Your task to perform on an android device: Open eBay Image 0: 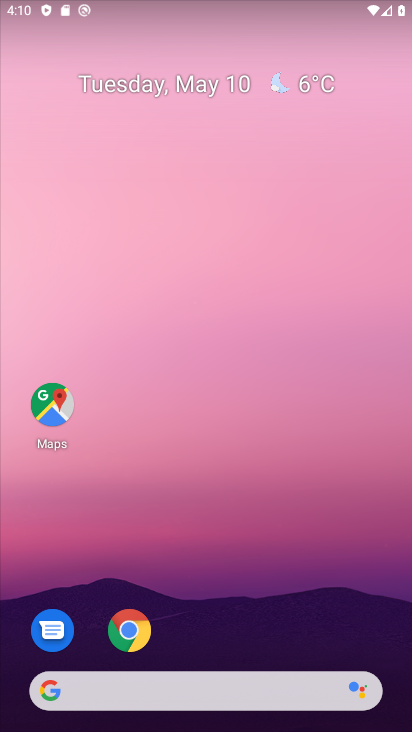
Step 0: drag from (289, 536) to (187, 110)
Your task to perform on an android device: Open eBay Image 1: 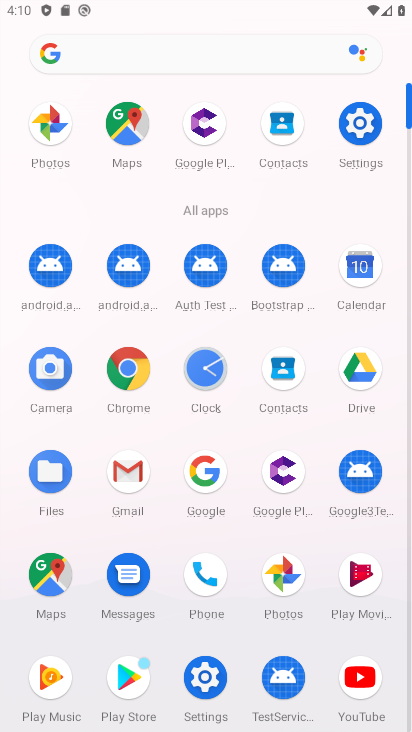
Step 1: click (129, 366)
Your task to perform on an android device: Open eBay Image 2: 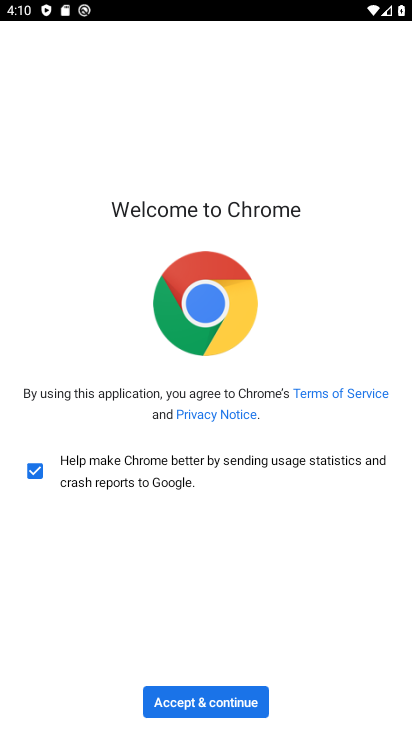
Step 2: click (228, 701)
Your task to perform on an android device: Open eBay Image 3: 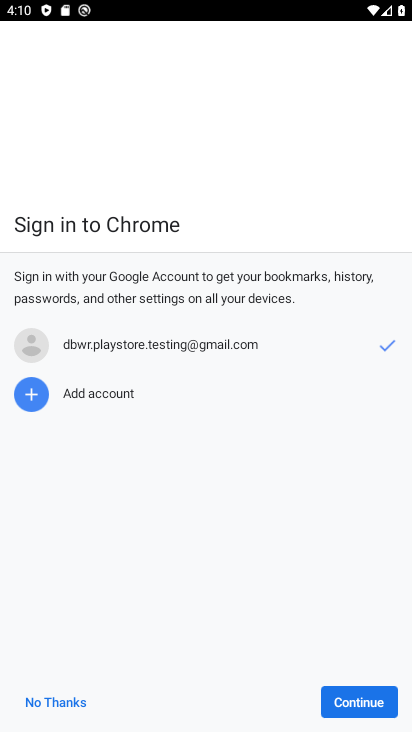
Step 3: click (366, 698)
Your task to perform on an android device: Open eBay Image 4: 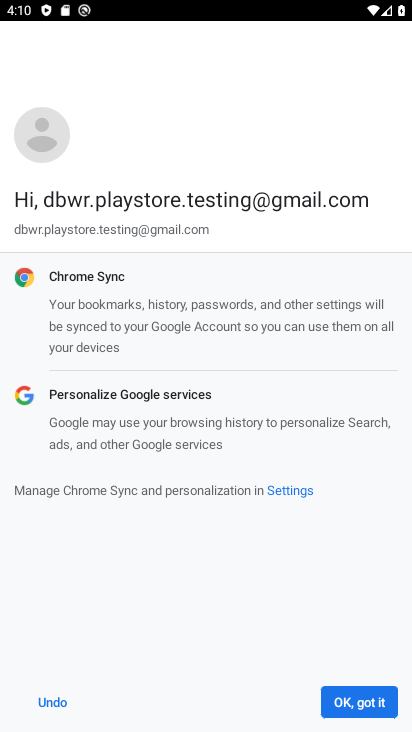
Step 4: click (363, 695)
Your task to perform on an android device: Open eBay Image 5: 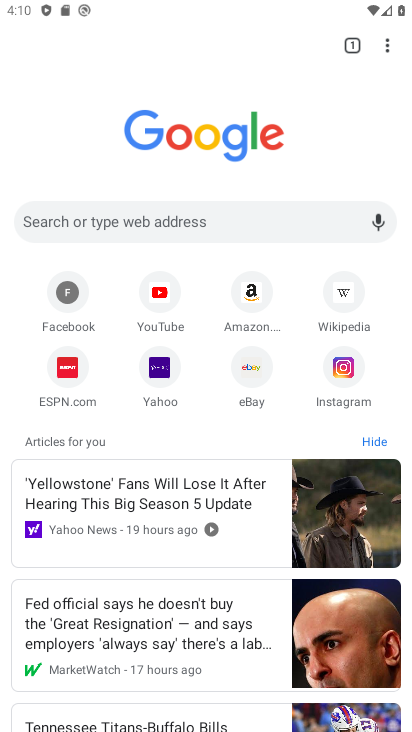
Step 5: click (257, 378)
Your task to perform on an android device: Open eBay Image 6: 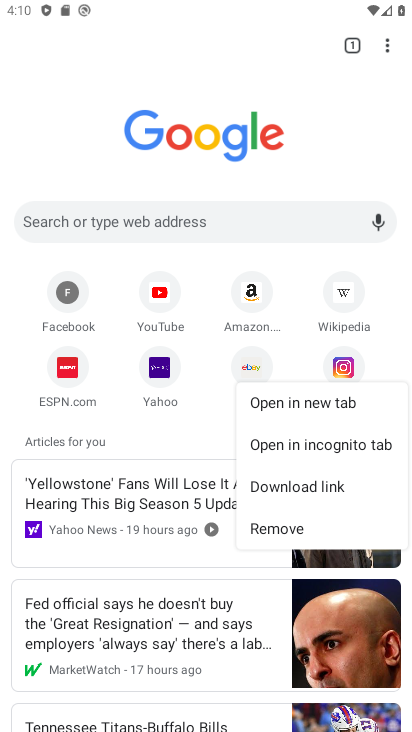
Step 6: click (254, 368)
Your task to perform on an android device: Open eBay Image 7: 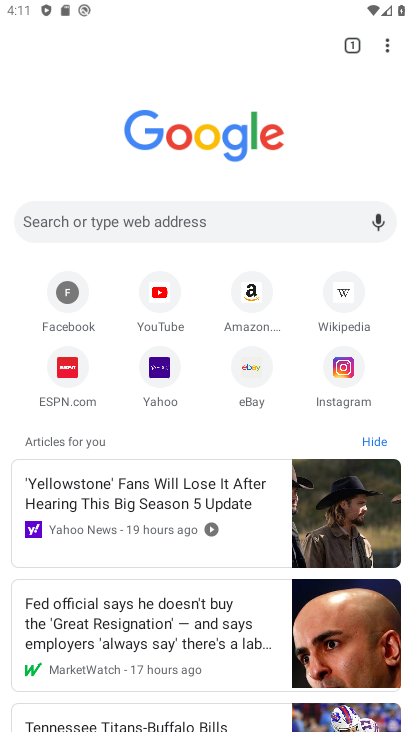
Step 7: click (254, 363)
Your task to perform on an android device: Open eBay Image 8: 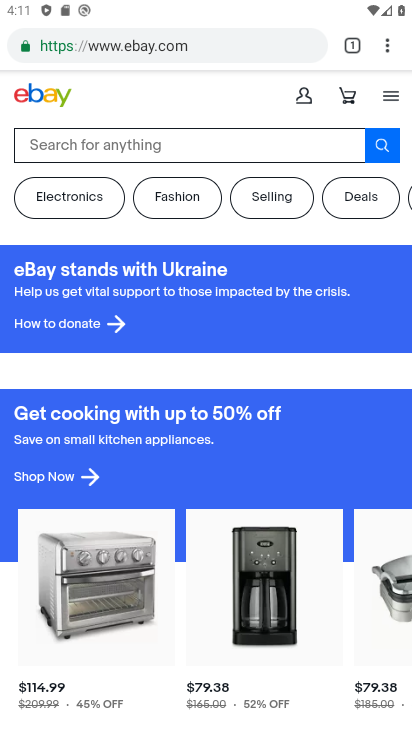
Step 8: task complete